Your task to perform on an android device: change text size in settings app Image 0: 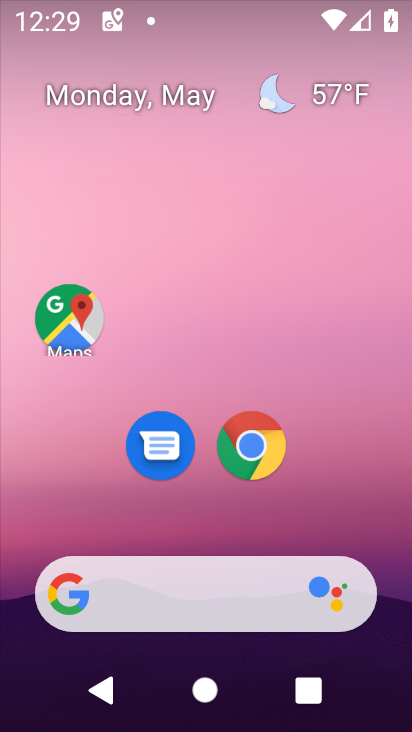
Step 0: drag from (335, 435) to (302, 53)
Your task to perform on an android device: change text size in settings app Image 1: 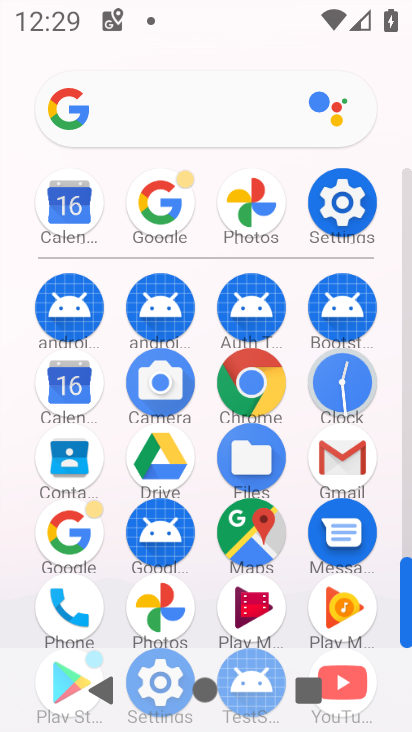
Step 1: click (348, 223)
Your task to perform on an android device: change text size in settings app Image 2: 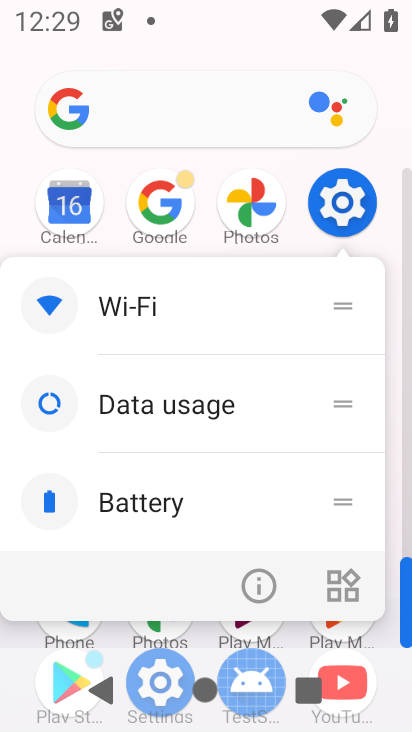
Step 2: click (348, 226)
Your task to perform on an android device: change text size in settings app Image 3: 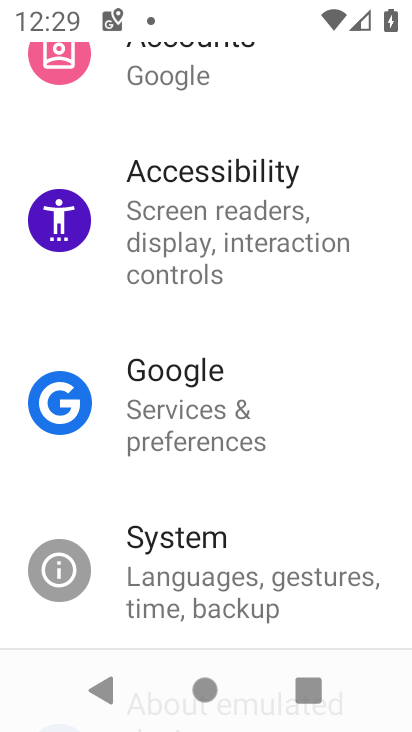
Step 3: drag from (291, 287) to (287, 622)
Your task to perform on an android device: change text size in settings app Image 4: 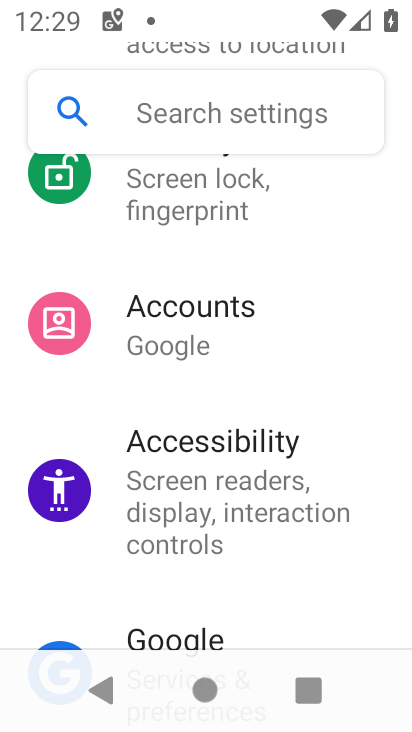
Step 4: drag from (278, 205) to (325, 496)
Your task to perform on an android device: change text size in settings app Image 5: 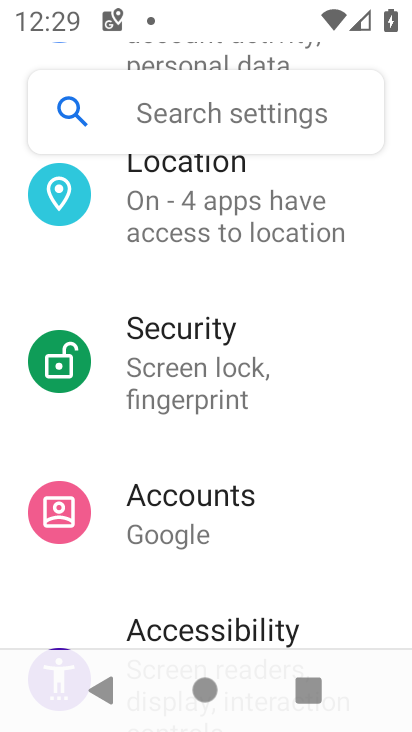
Step 5: drag from (272, 237) to (288, 556)
Your task to perform on an android device: change text size in settings app Image 6: 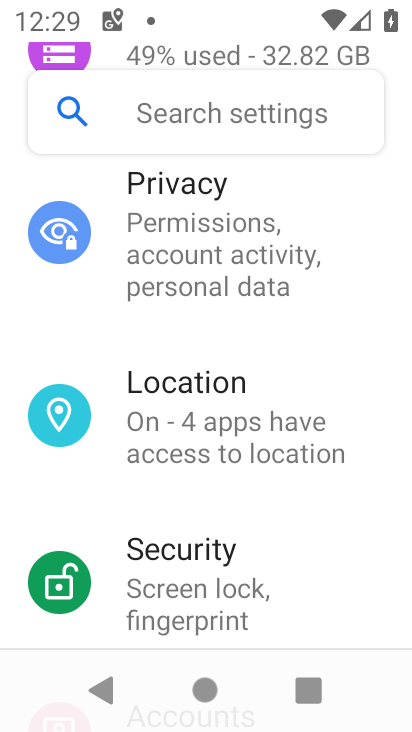
Step 6: drag from (335, 236) to (336, 544)
Your task to perform on an android device: change text size in settings app Image 7: 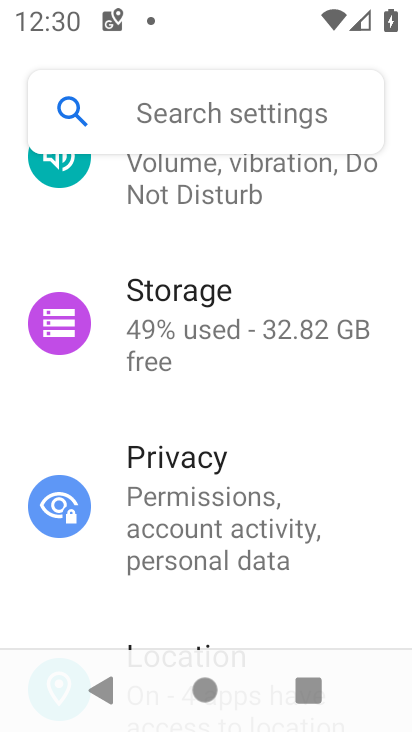
Step 7: drag from (336, 258) to (334, 524)
Your task to perform on an android device: change text size in settings app Image 8: 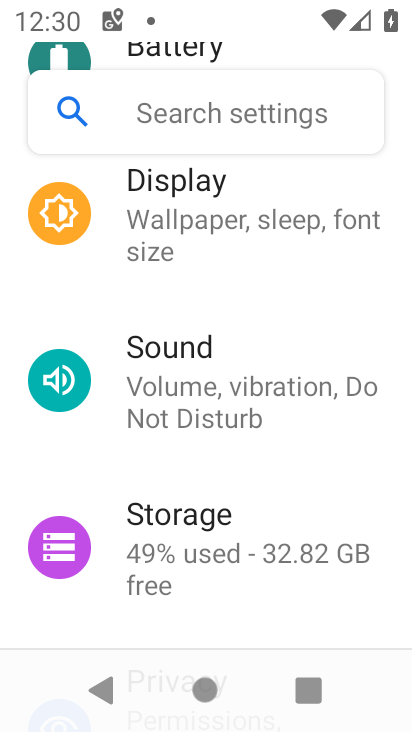
Step 8: drag from (323, 288) to (316, 544)
Your task to perform on an android device: change text size in settings app Image 9: 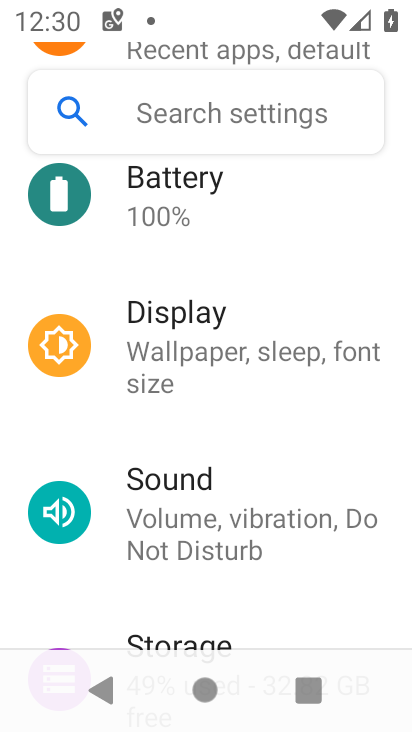
Step 9: click (289, 377)
Your task to perform on an android device: change text size in settings app Image 10: 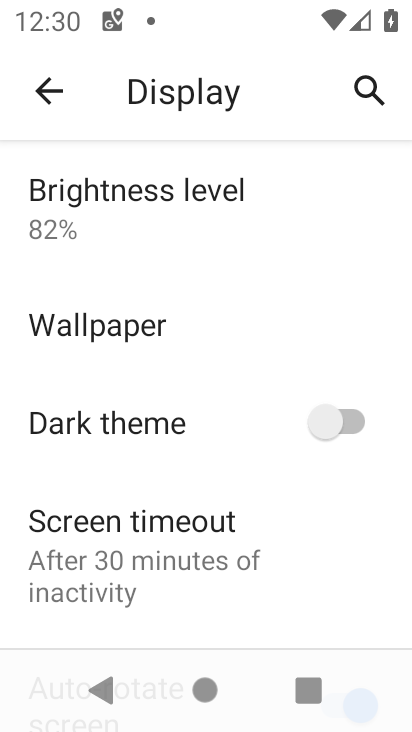
Step 10: drag from (263, 572) to (267, 195)
Your task to perform on an android device: change text size in settings app Image 11: 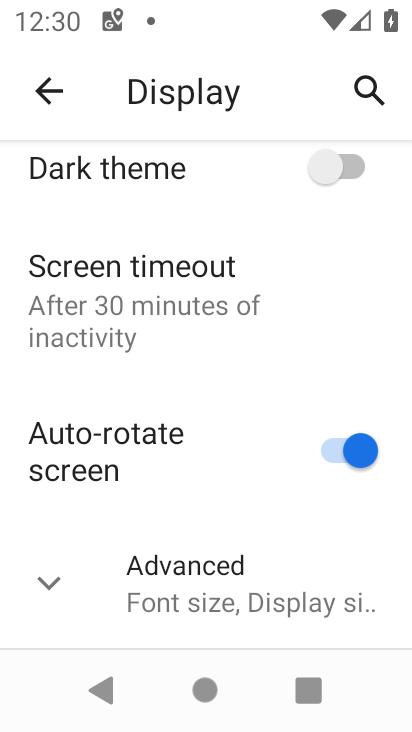
Step 11: drag from (199, 566) to (216, 181)
Your task to perform on an android device: change text size in settings app Image 12: 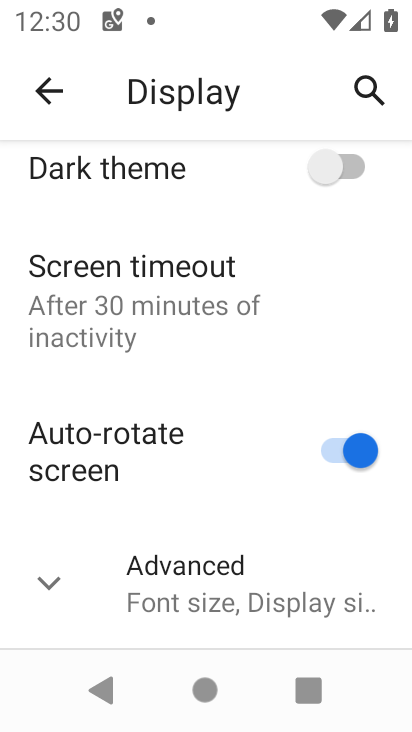
Step 12: click (206, 583)
Your task to perform on an android device: change text size in settings app Image 13: 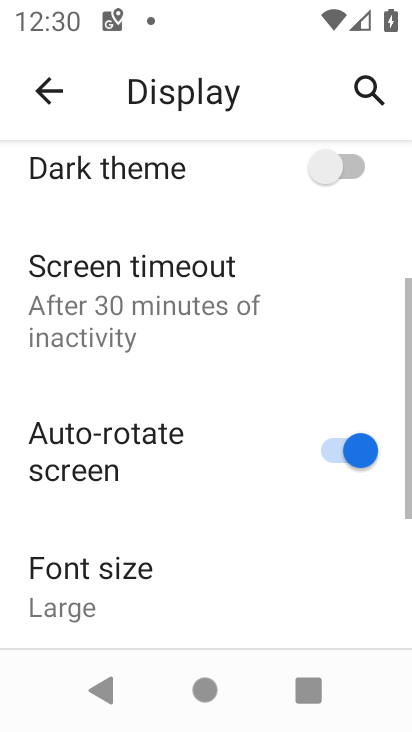
Step 13: drag from (210, 585) to (232, 235)
Your task to perform on an android device: change text size in settings app Image 14: 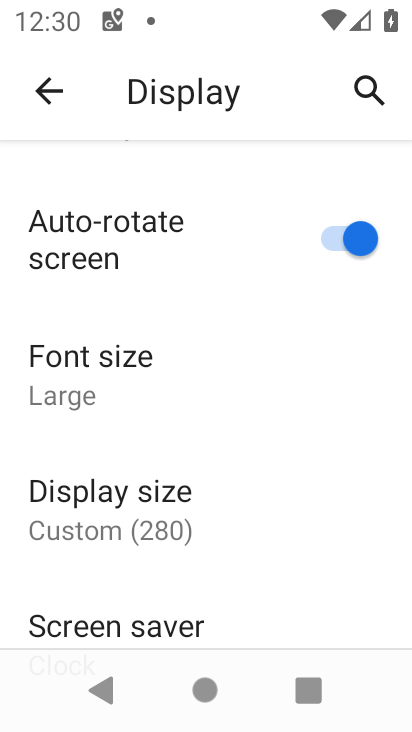
Step 14: click (187, 353)
Your task to perform on an android device: change text size in settings app Image 15: 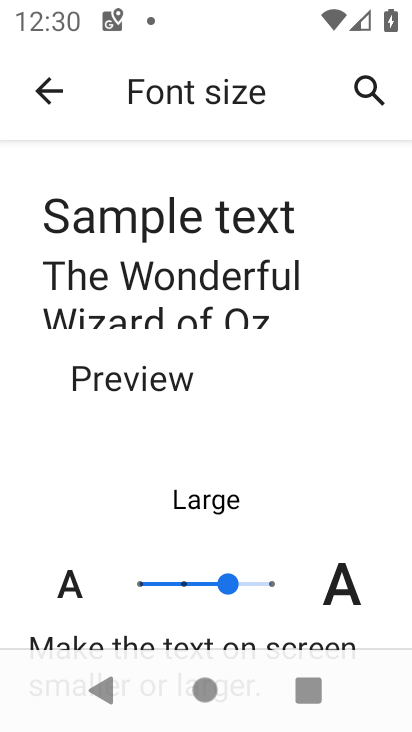
Step 15: task complete